Your task to perform on an android device: change timer sound Image 0: 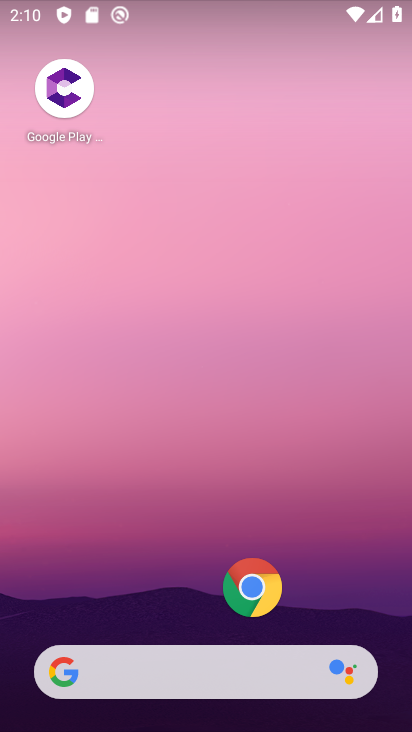
Step 0: drag from (179, 582) to (208, 243)
Your task to perform on an android device: change timer sound Image 1: 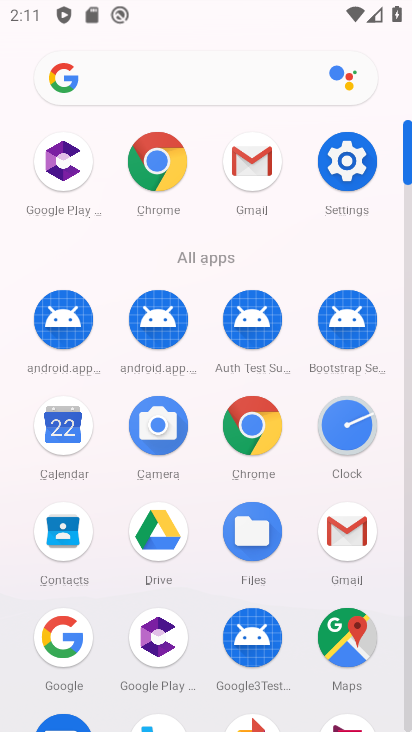
Step 1: click (357, 434)
Your task to perform on an android device: change timer sound Image 2: 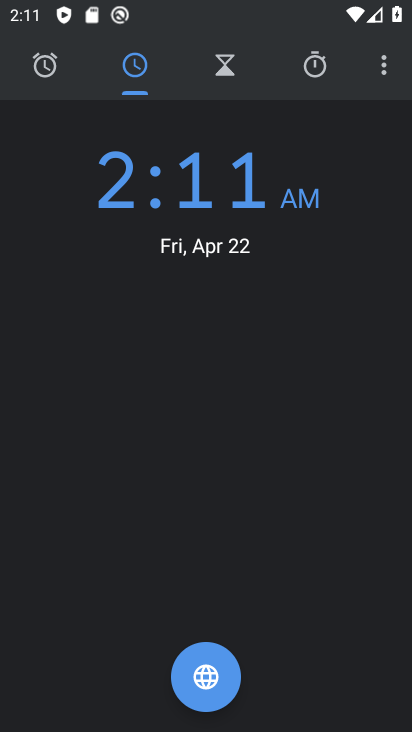
Step 2: click (390, 74)
Your task to perform on an android device: change timer sound Image 3: 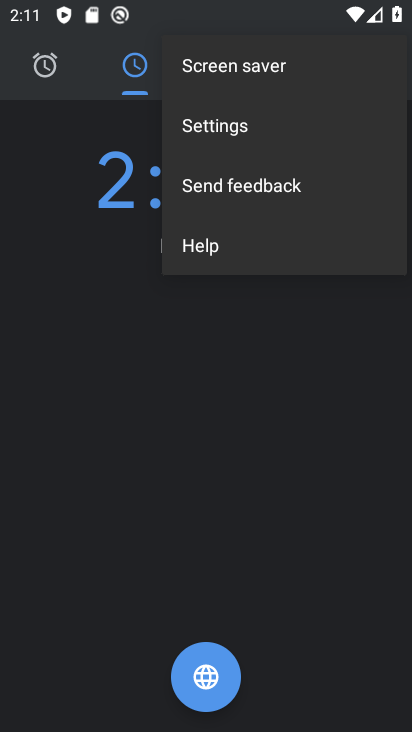
Step 3: click (233, 117)
Your task to perform on an android device: change timer sound Image 4: 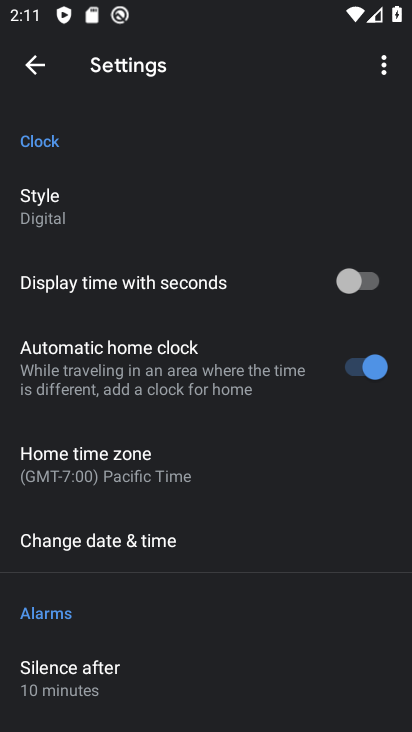
Step 4: drag from (124, 599) to (176, 233)
Your task to perform on an android device: change timer sound Image 5: 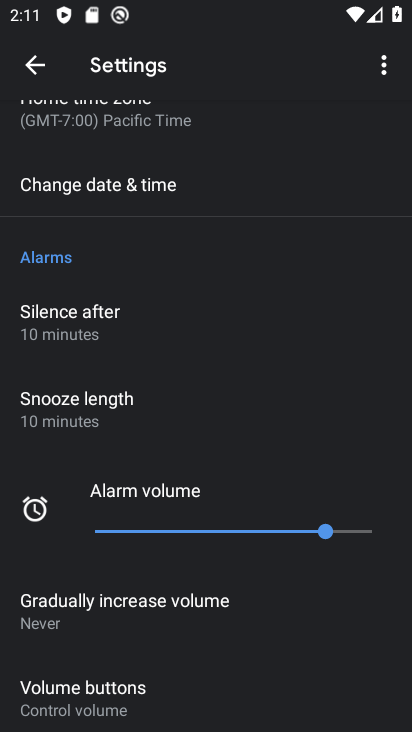
Step 5: drag from (199, 562) to (199, 304)
Your task to perform on an android device: change timer sound Image 6: 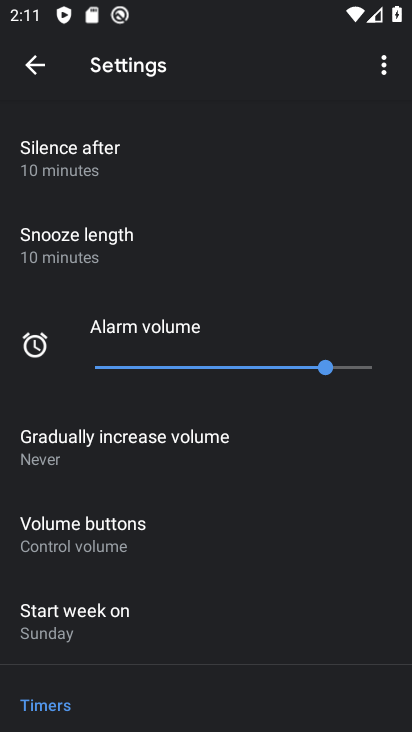
Step 6: drag from (169, 620) to (173, 327)
Your task to perform on an android device: change timer sound Image 7: 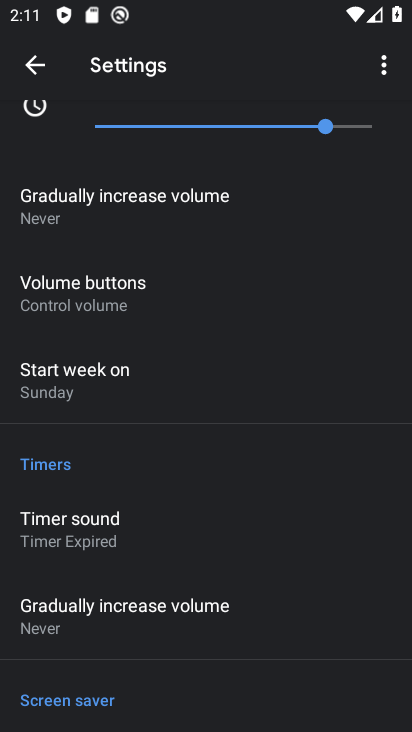
Step 7: click (138, 545)
Your task to perform on an android device: change timer sound Image 8: 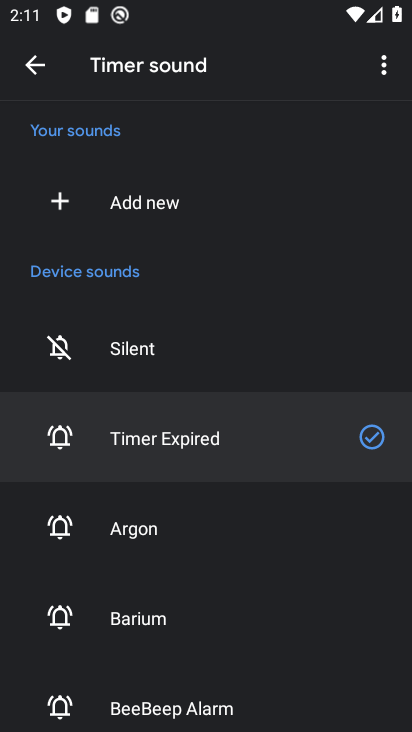
Step 8: click (178, 524)
Your task to perform on an android device: change timer sound Image 9: 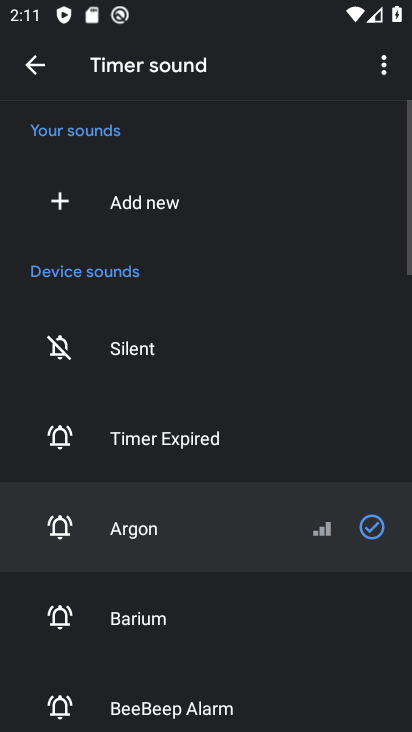
Step 9: task complete